Your task to perform on an android device: Open calendar and show me the fourth week of next month Image 0: 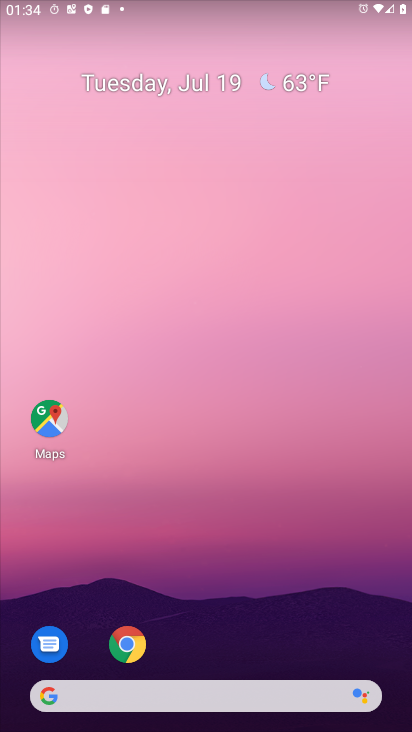
Step 0: drag from (213, 721) to (219, 123)
Your task to perform on an android device: Open calendar and show me the fourth week of next month Image 1: 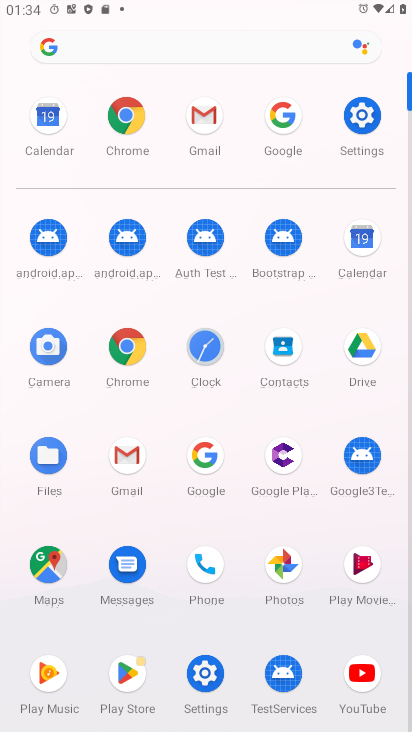
Step 1: click (364, 249)
Your task to perform on an android device: Open calendar and show me the fourth week of next month Image 2: 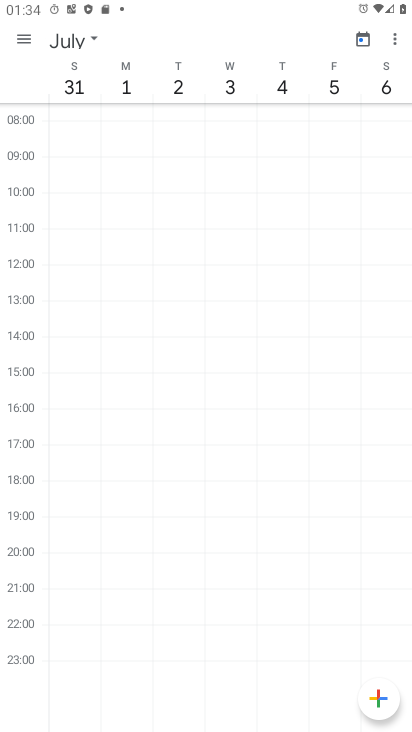
Step 2: click (92, 35)
Your task to perform on an android device: Open calendar and show me the fourth week of next month Image 3: 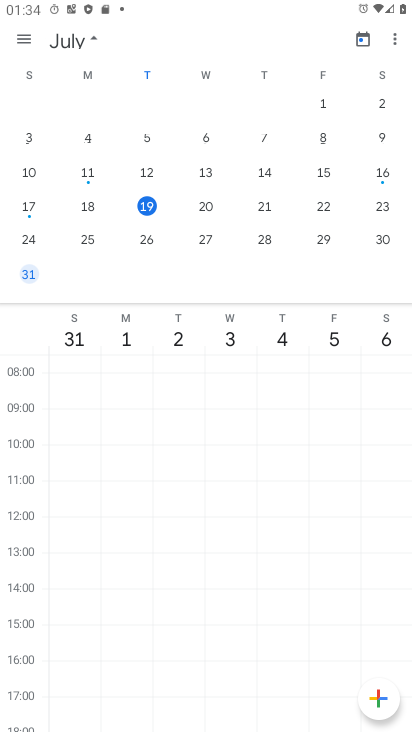
Step 3: drag from (376, 215) to (49, 199)
Your task to perform on an android device: Open calendar and show me the fourth week of next month Image 4: 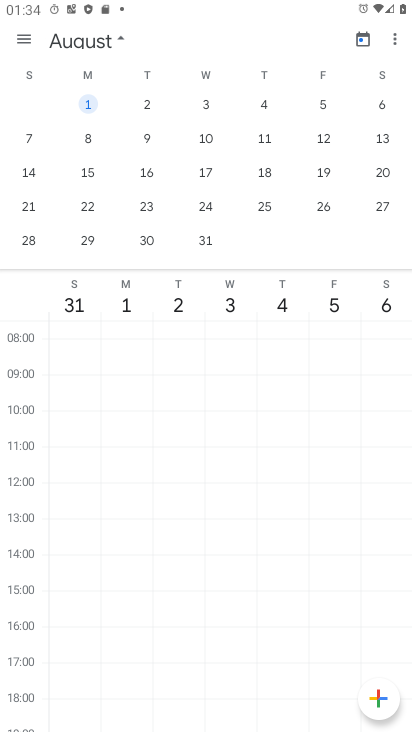
Step 4: click (82, 198)
Your task to perform on an android device: Open calendar and show me the fourth week of next month Image 5: 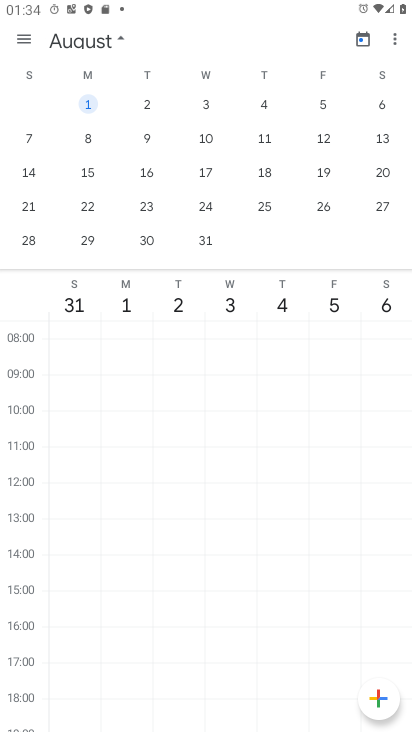
Step 5: click (87, 200)
Your task to perform on an android device: Open calendar and show me the fourth week of next month Image 6: 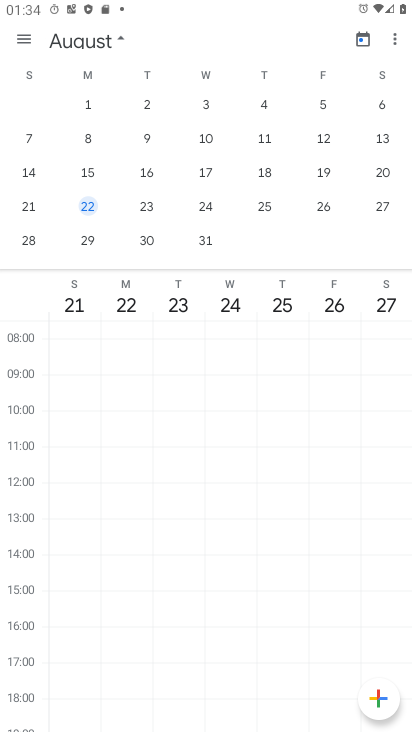
Step 6: click (24, 35)
Your task to perform on an android device: Open calendar and show me the fourth week of next month Image 7: 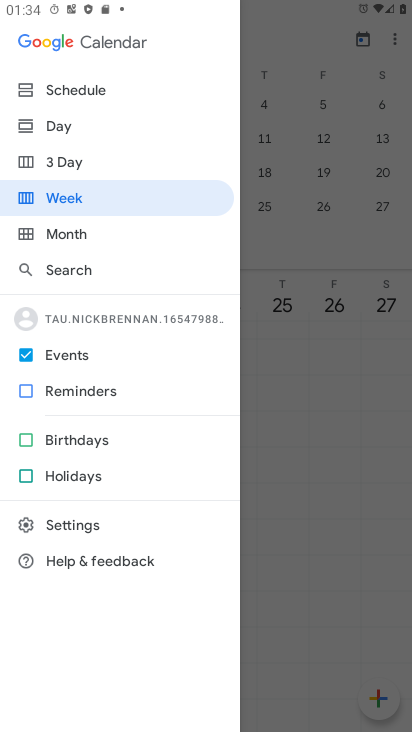
Step 7: click (57, 200)
Your task to perform on an android device: Open calendar and show me the fourth week of next month Image 8: 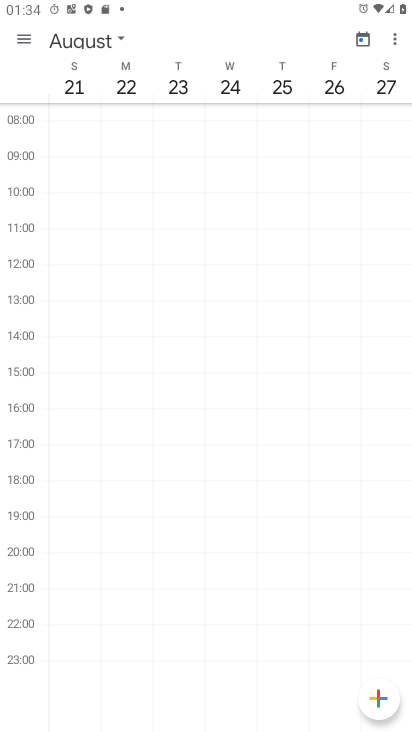
Step 8: task complete